Your task to perform on an android device: Search for the best deal on a 3d printer on aliexpress Image 0: 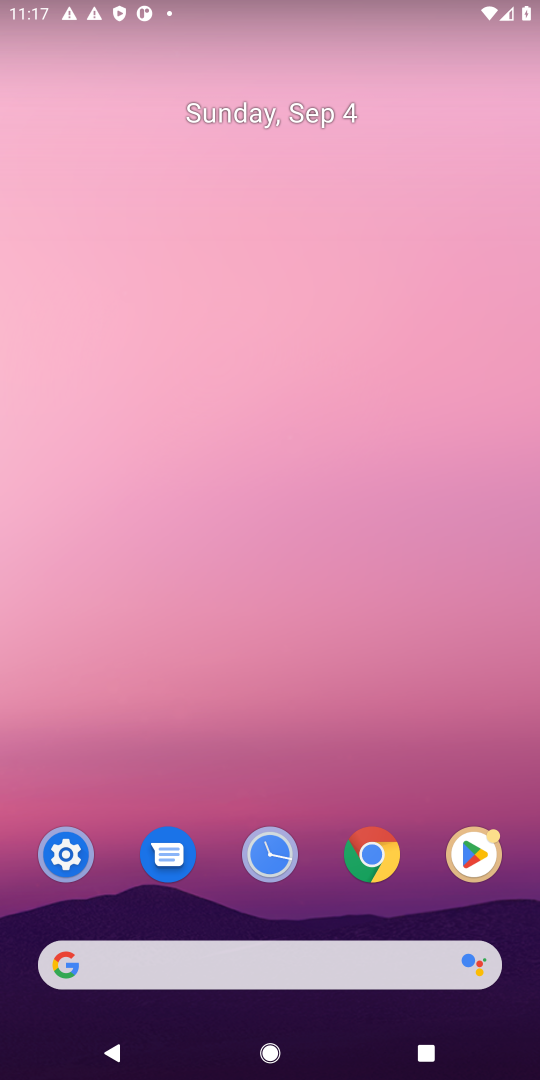
Step 0: press home button
Your task to perform on an android device: Search for the best deal on a 3d printer on aliexpress Image 1: 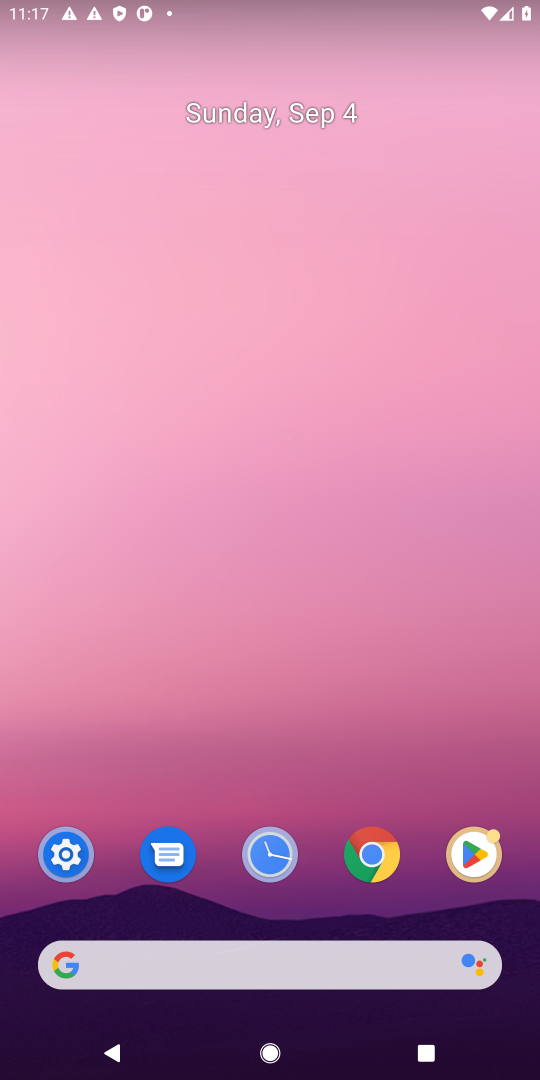
Step 1: click (363, 972)
Your task to perform on an android device: Search for the best deal on a 3d printer on aliexpress Image 2: 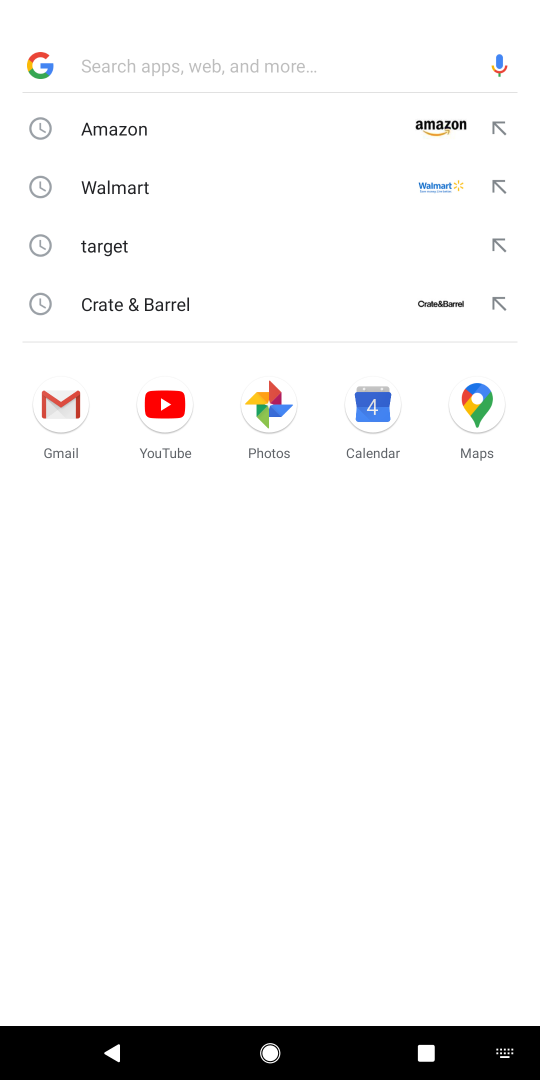
Step 2: press enter
Your task to perform on an android device: Search for the best deal on a 3d printer on aliexpress Image 3: 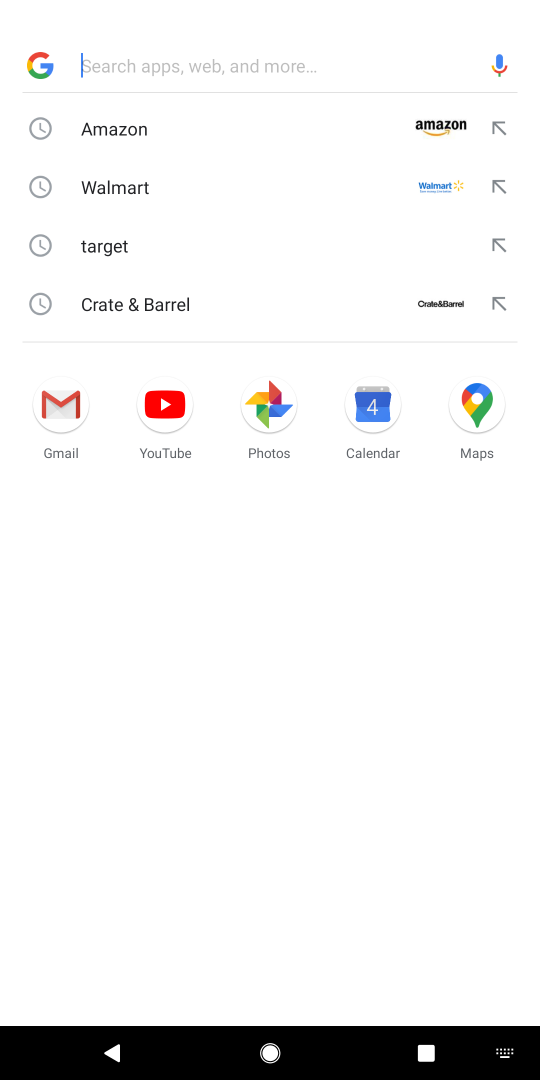
Step 3: type "aliexpress"
Your task to perform on an android device: Search for the best deal on a 3d printer on aliexpress Image 4: 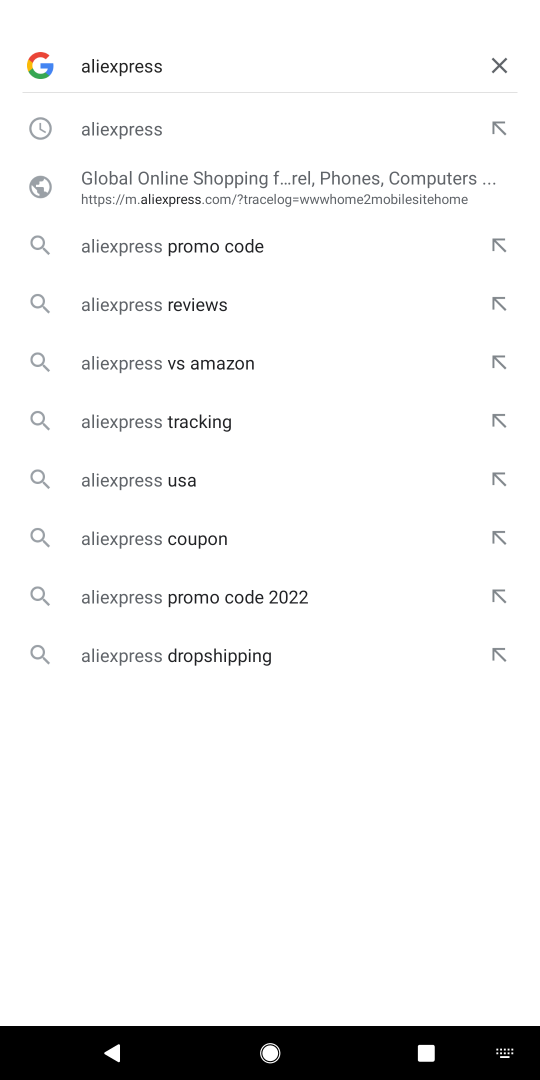
Step 4: click (185, 188)
Your task to perform on an android device: Search for the best deal on a 3d printer on aliexpress Image 5: 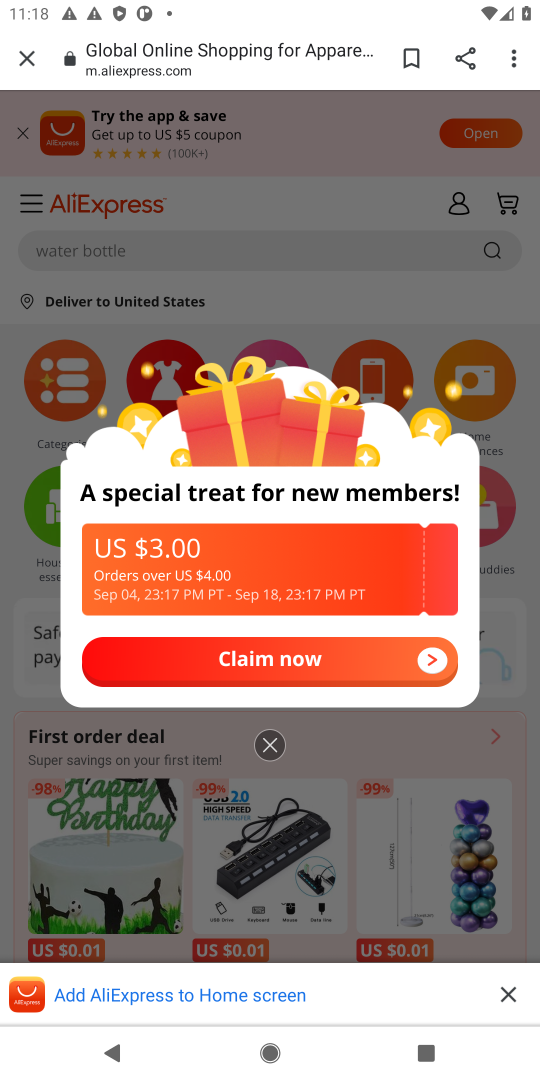
Step 5: click (172, 245)
Your task to perform on an android device: Search for the best deal on a 3d printer on aliexpress Image 6: 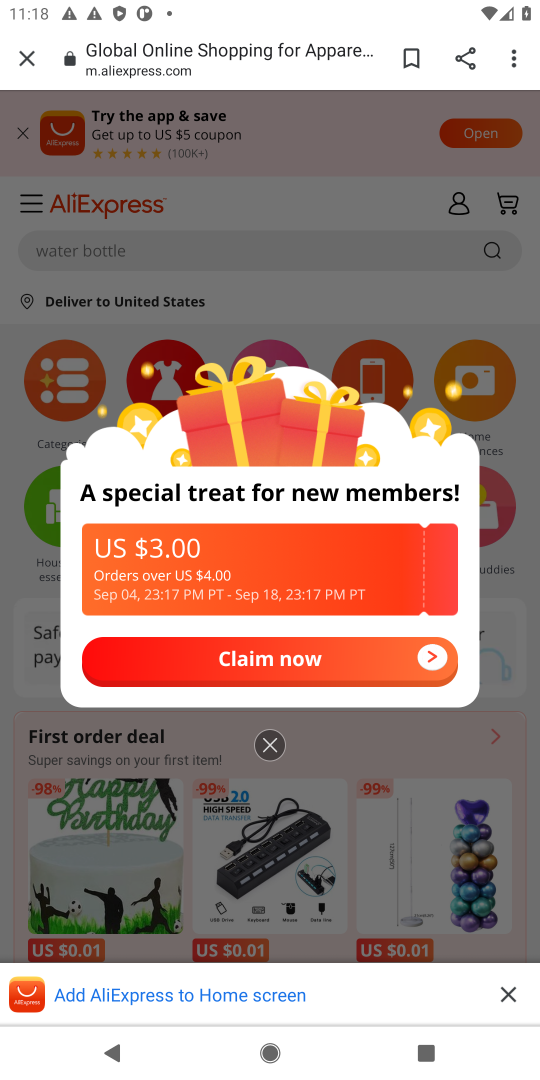
Step 6: click (265, 741)
Your task to perform on an android device: Search for the best deal on a 3d printer on aliexpress Image 7: 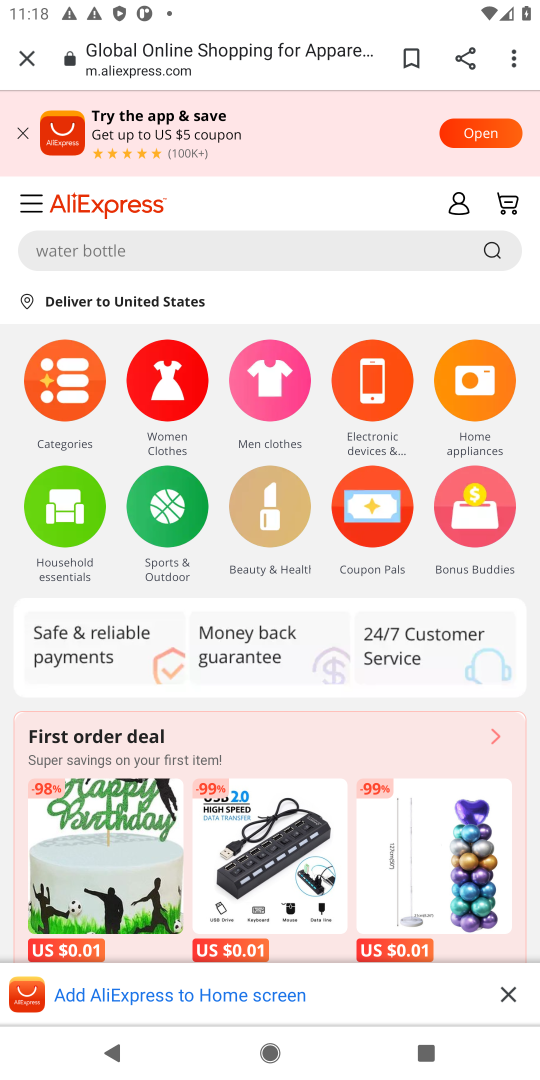
Step 7: click (89, 254)
Your task to perform on an android device: Search for the best deal on a 3d printer on aliexpress Image 8: 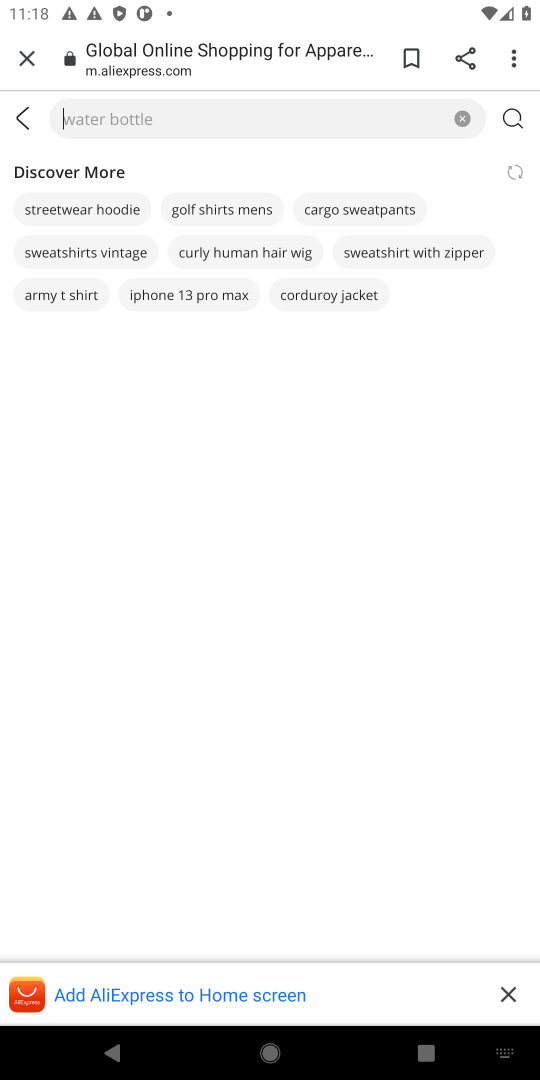
Step 8: type "best deal on a 3d printer"
Your task to perform on an android device: Search for the best deal on a 3d printer on aliexpress Image 9: 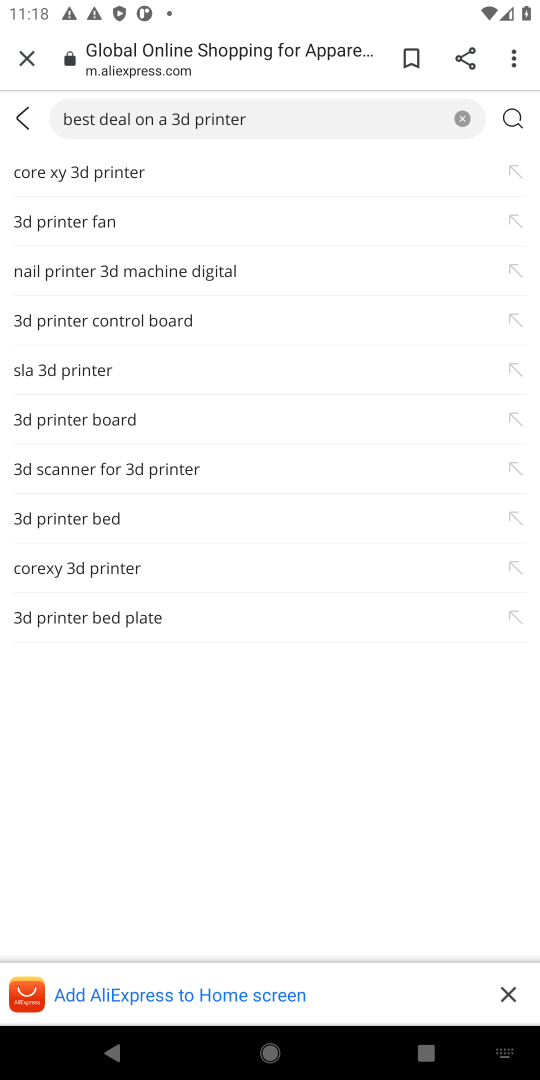
Step 9: click (509, 110)
Your task to perform on an android device: Search for the best deal on a 3d printer on aliexpress Image 10: 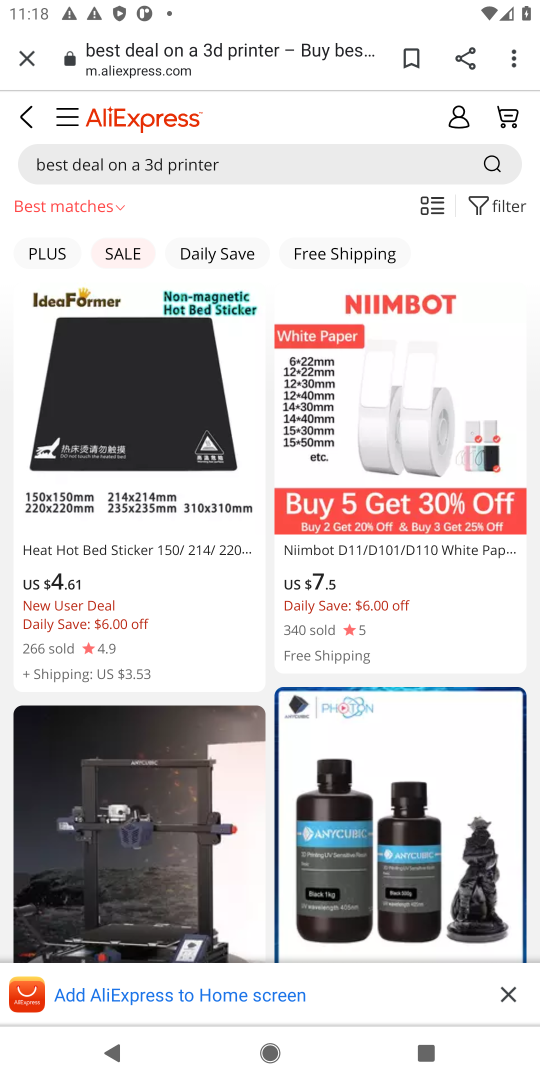
Step 10: task complete